Your task to perform on an android device: Do I have any events tomorrow? Image 0: 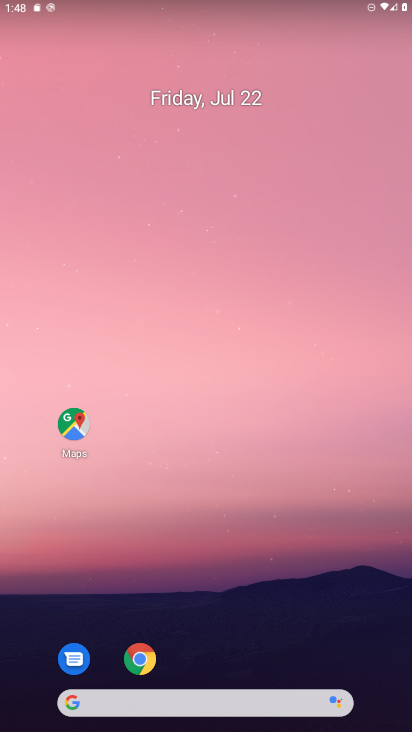
Step 0: drag from (155, 699) to (136, 132)
Your task to perform on an android device: Do I have any events tomorrow? Image 1: 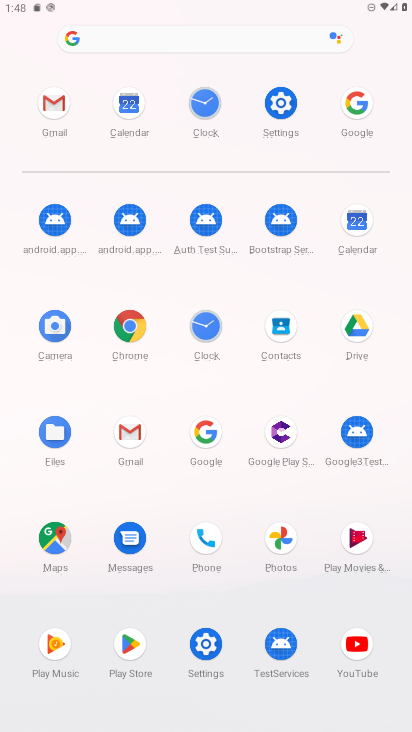
Step 1: click (357, 217)
Your task to perform on an android device: Do I have any events tomorrow? Image 2: 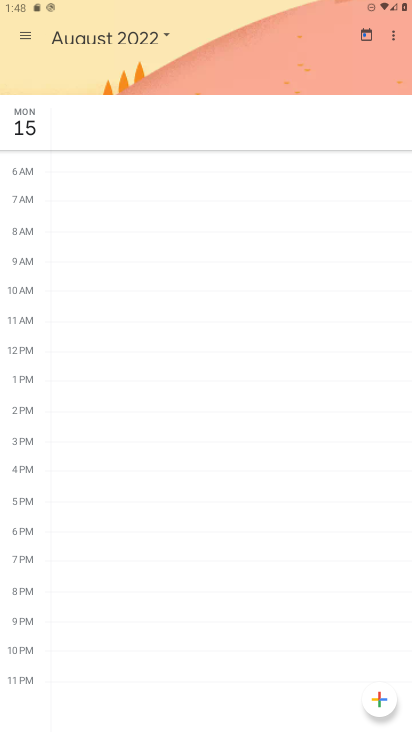
Step 2: click (370, 34)
Your task to perform on an android device: Do I have any events tomorrow? Image 3: 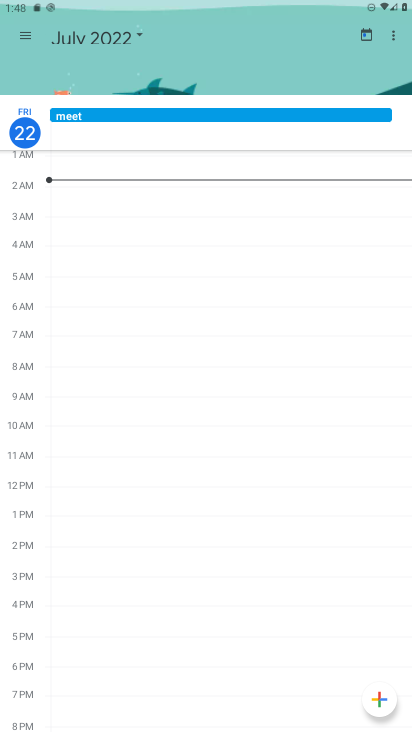
Step 3: click (140, 36)
Your task to perform on an android device: Do I have any events tomorrow? Image 4: 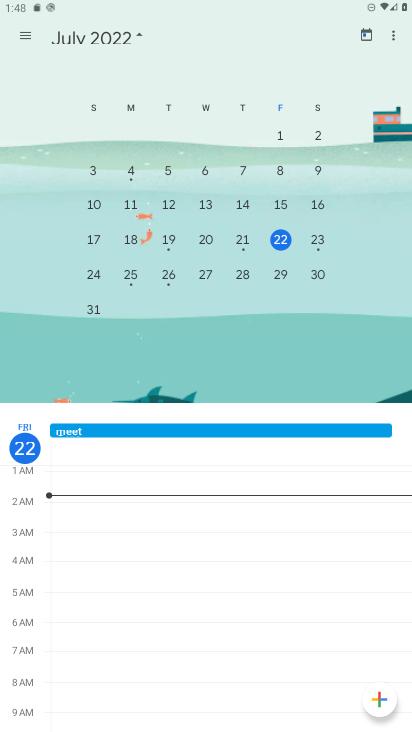
Step 4: click (317, 236)
Your task to perform on an android device: Do I have any events tomorrow? Image 5: 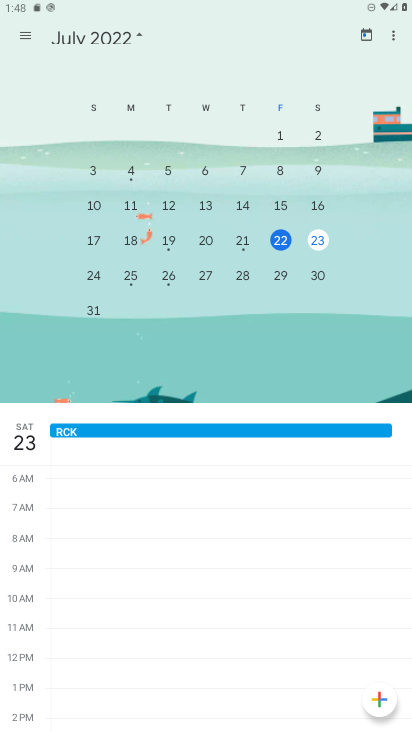
Step 5: click (32, 34)
Your task to perform on an android device: Do I have any events tomorrow? Image 6: 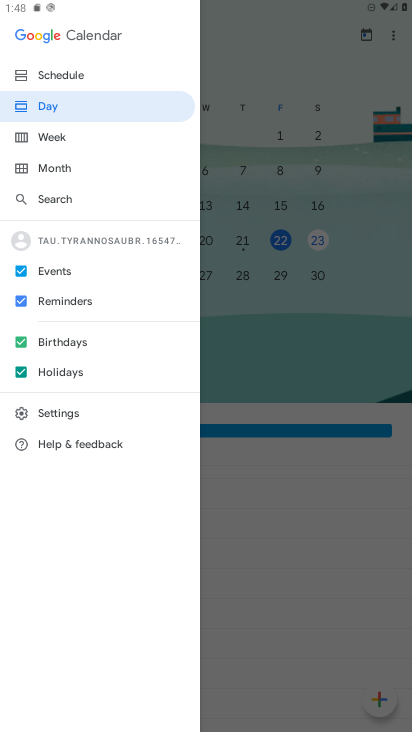
Step 6: click (58, 77)
Your task to perform on an android device: Do I have any events tomorrow? Image 7: 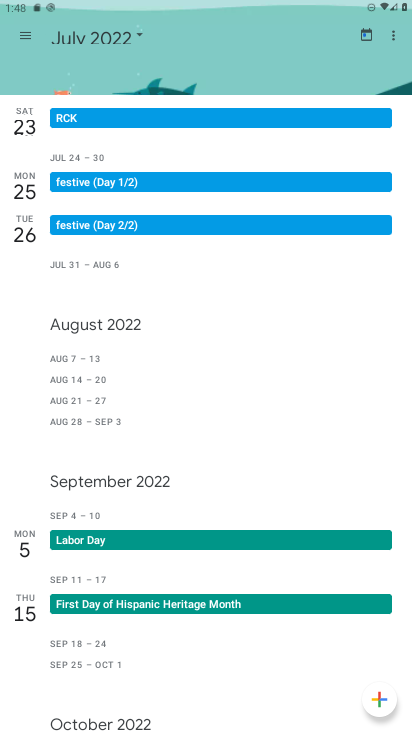
Step 7: task complete